Your task to perform on an android device: Open Chrome and go to the settings page Image 0: 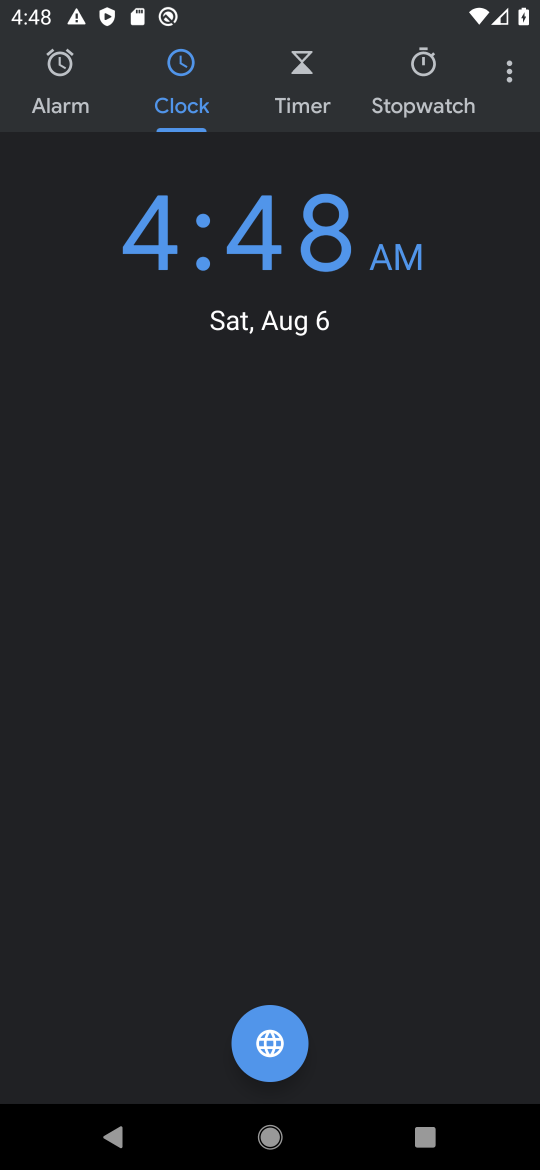
Step 0: press home button
Your task to perform on an android device: Open Chrome and go to the settings page Image 1: 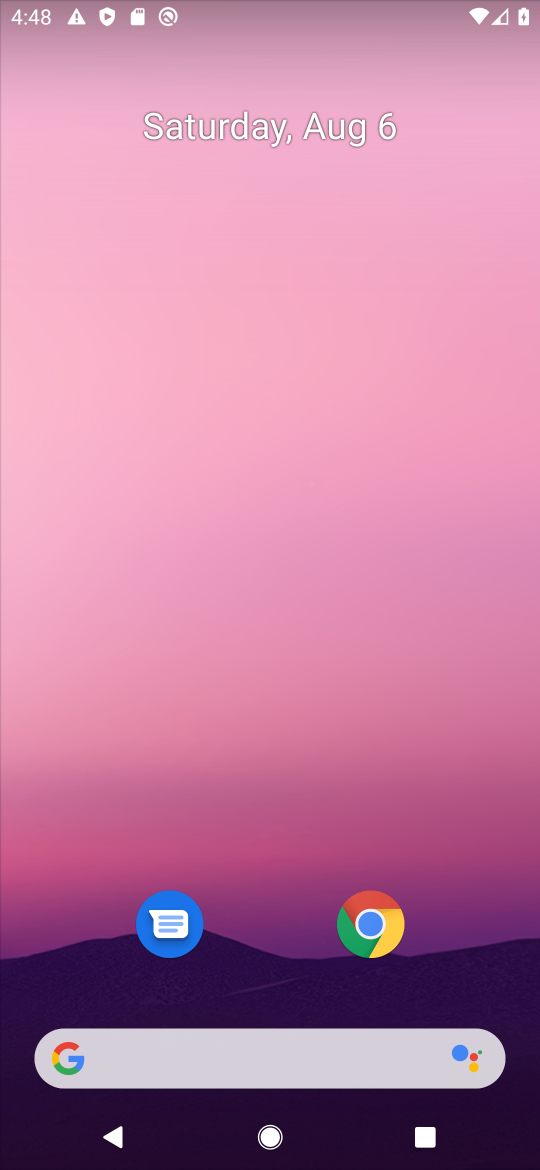
Step 1: click (398, 918)
Your task to perform on an android device: Open Chrome and go to the settings page Image 2: 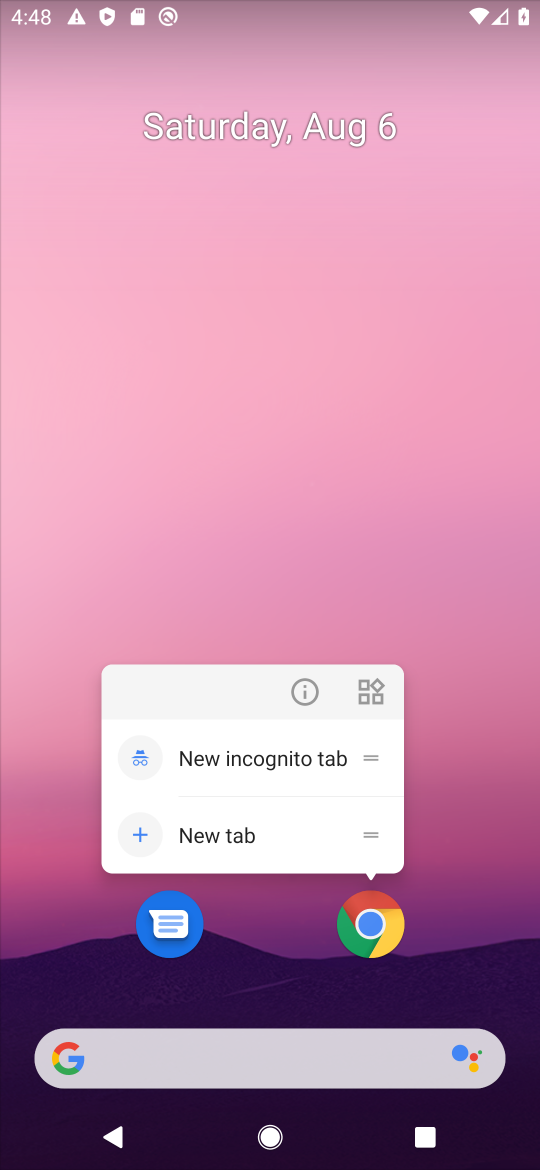
Step 2: click (377, 930)
Your task to perform on an android device: Open Chrome and go to the settings page Image 3: 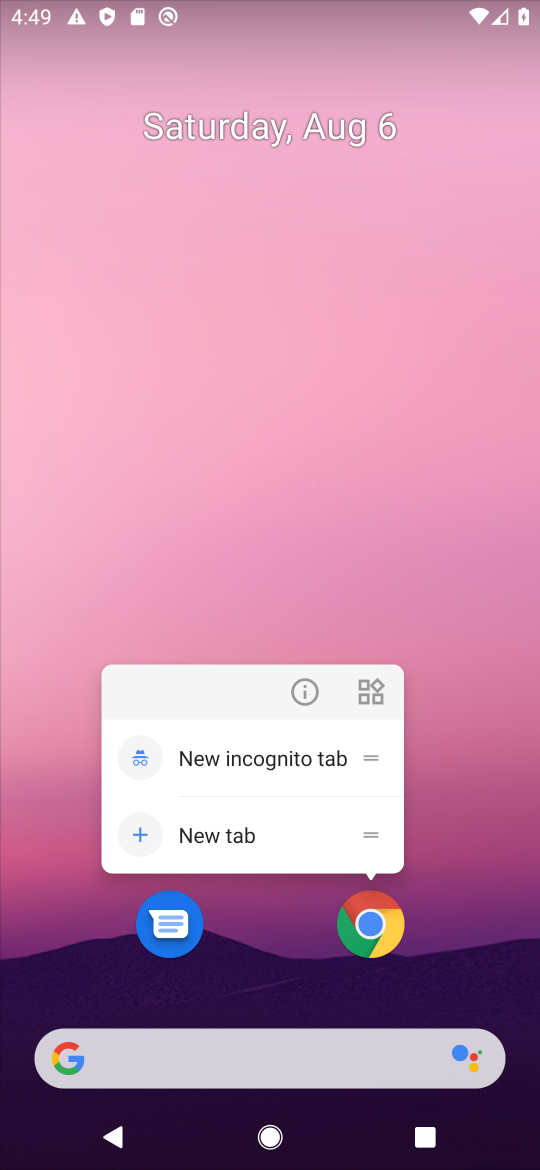
Step 3: click (377, 930)
Your task to perform on an android device: Open Chrome and go to the settings page Image 4: 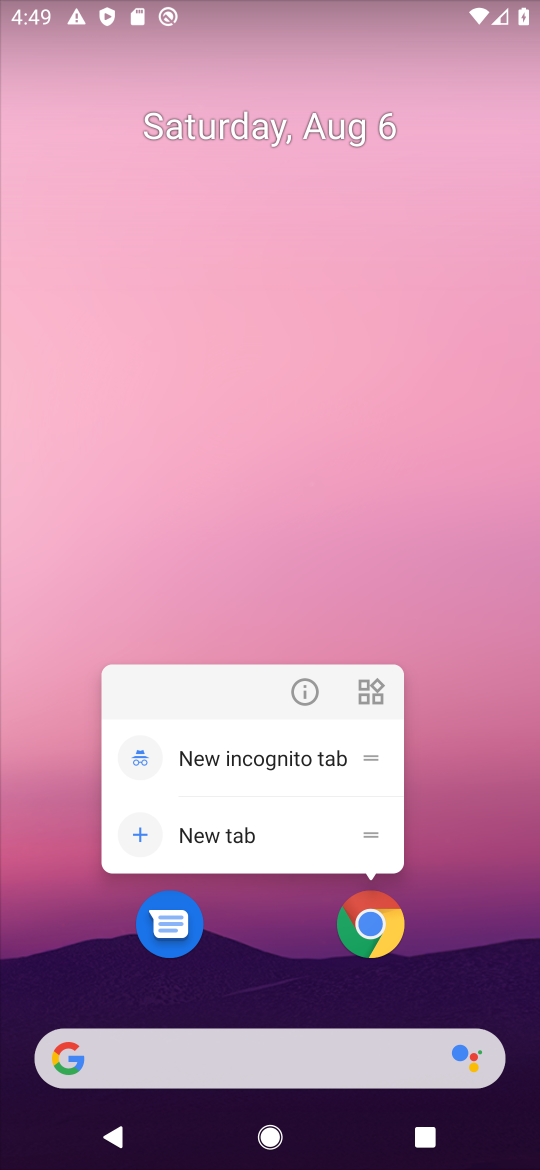
Step 4: click (377, 930)
Your task to perform on an android device: Open Chrome and go to the settings page Image 5: 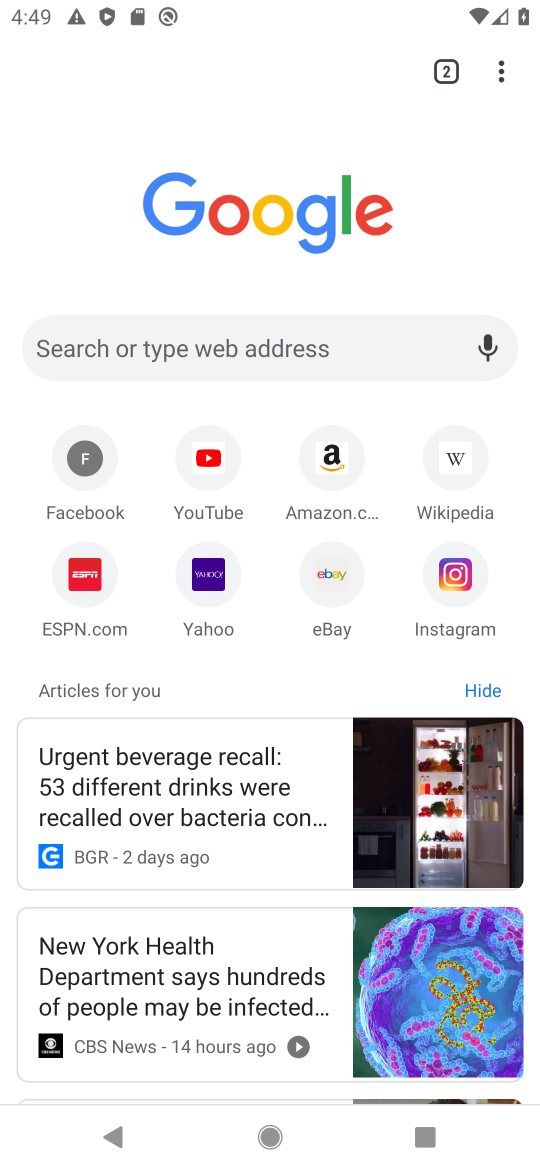
Step 5: click (510, 54)
Your task to perform on an android device: Open Chrome and go to the settings page Image 6: 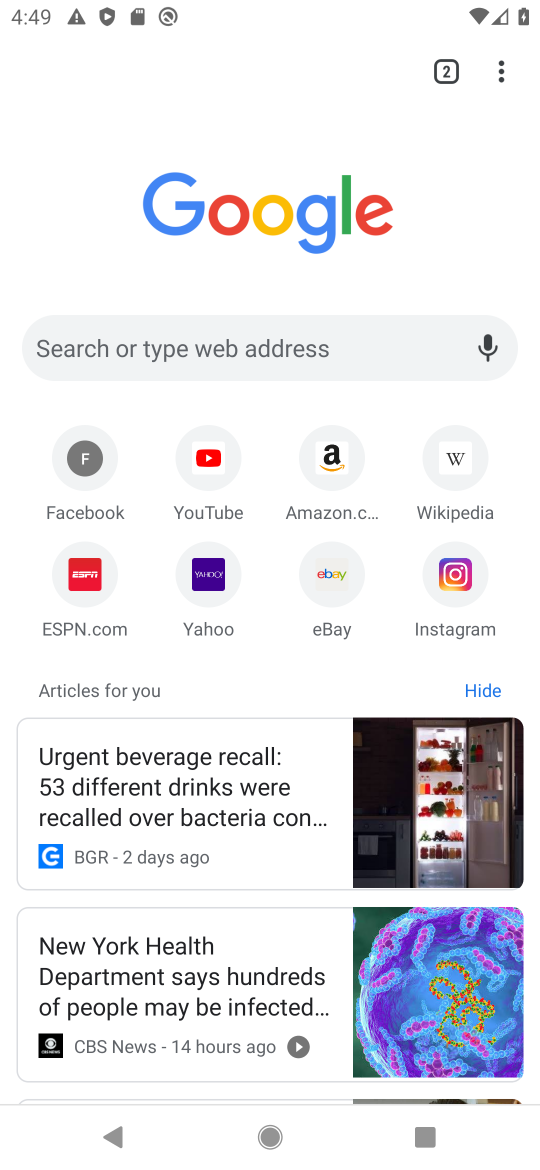
Step 6: click (500, 71)
Your task to perform on an android device: Open Chrome and go to the settings page Image 7: 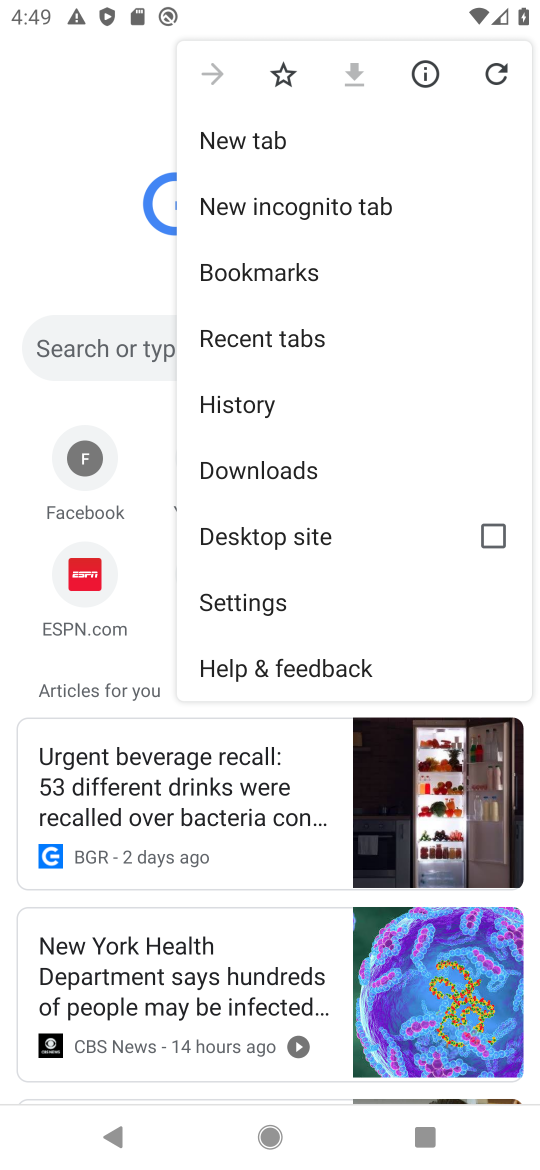
Step 7: click (307, 601)
Your task to perform on an android device: Open Chrome and go to the settings page Image 8: 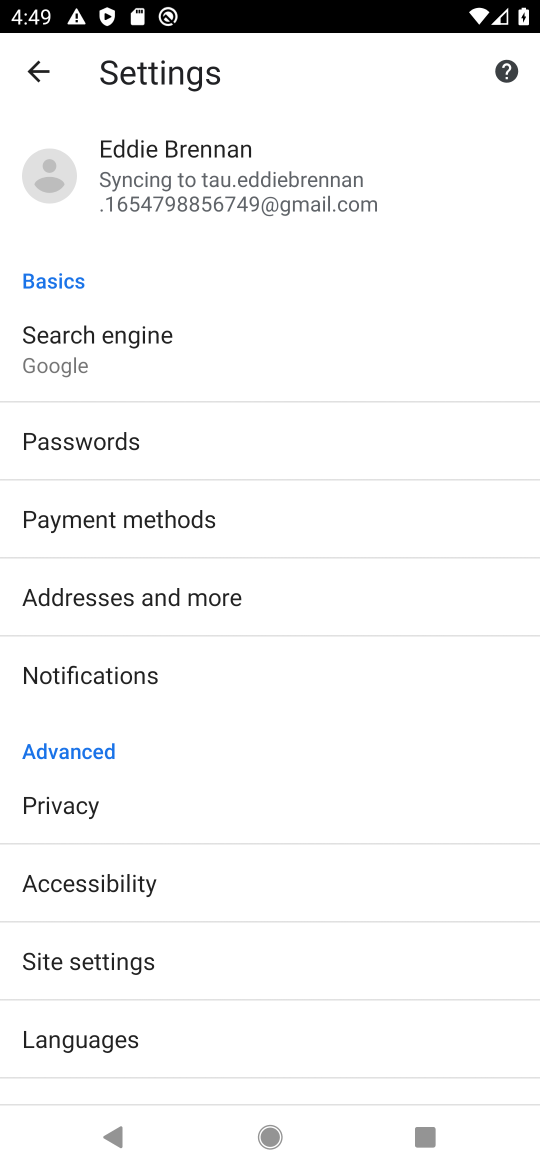
Step 8: task complete